Your task to perform on an android device: What's the news in South Korea? Image 0: 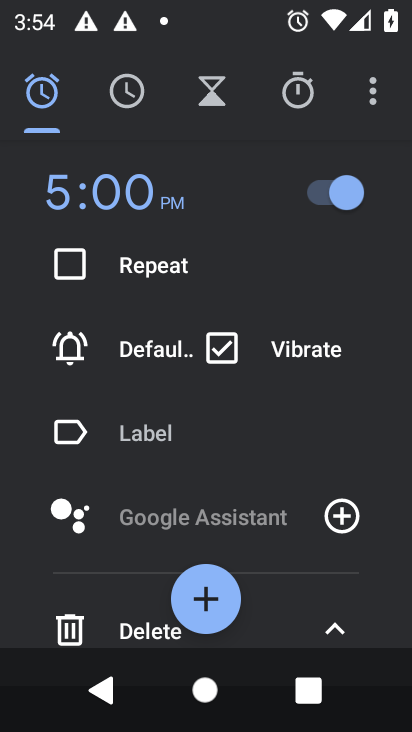
Step 0: press home button
Your task to perform on an android device: What's the news in South Korea? Image 1: 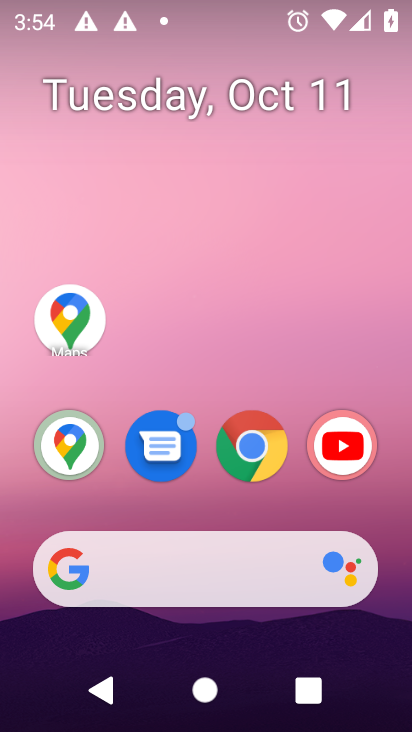
Step 1: click (255, 455)
Your task to perform on an android device: What's the news in South Korea? Image 2: 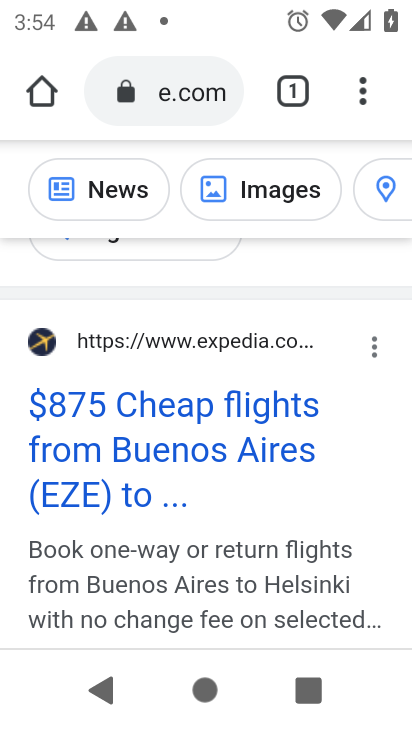
Step 2: click (170, 92)
Your task to perform on an android device: What's the news in South Korea? Image 3: 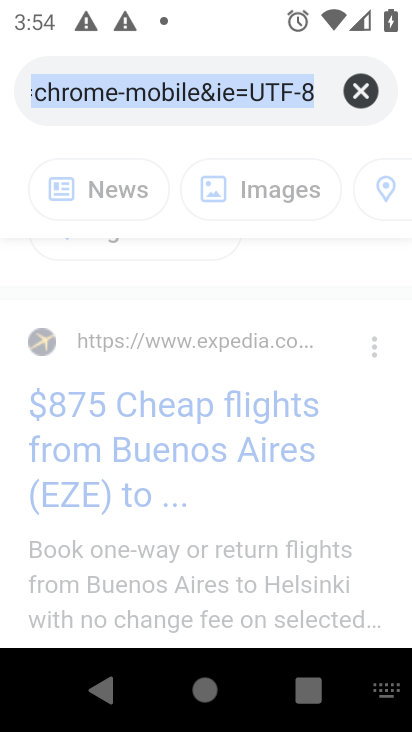
Step 3: click (369, 94)
Your task to perform on an android device: What's the news in South Korea? Image 4: 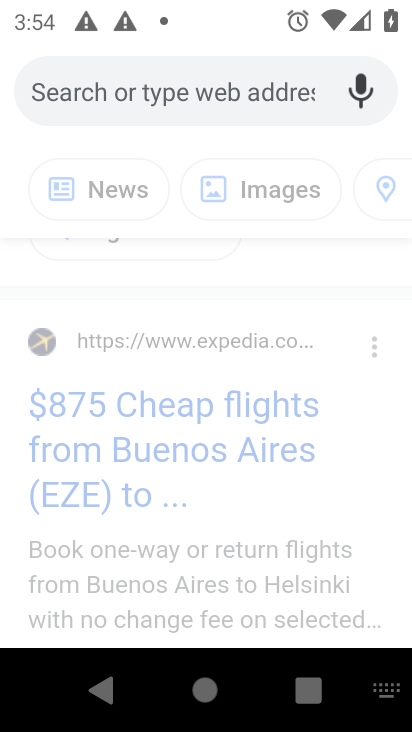
Step 4: type " South Korea news"
Your task to perform on an android device: What's the news in South Korea? Image 5: 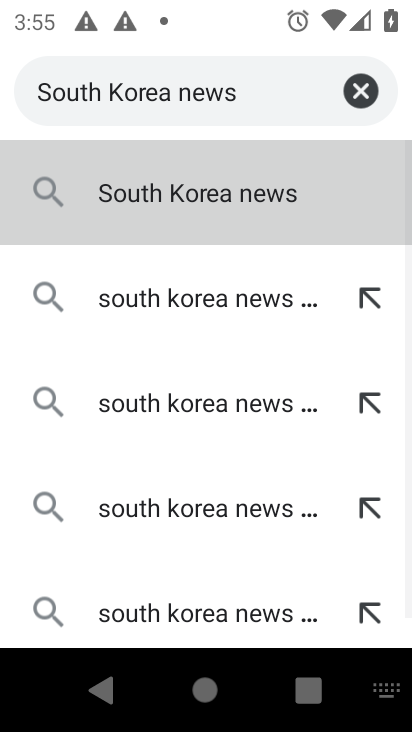
Step 5: click (219, 209)
Your task to perform on an android device: What's the news in South Korea? Image 6: 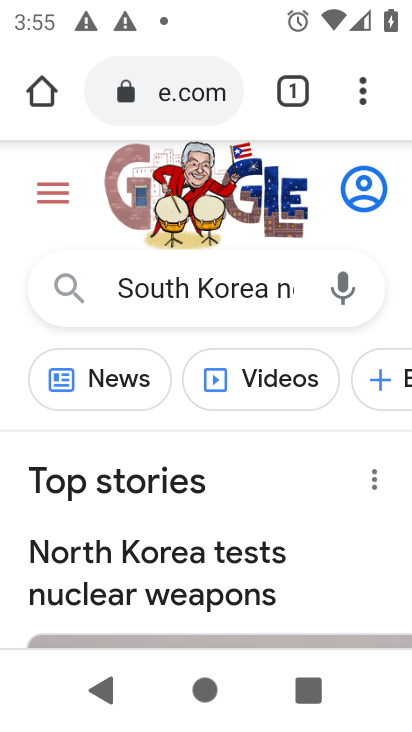
Step 6: drag from (106, 516) to (125, 182)
Your task to perform on an android device: What's the news in South Korea? Image 7: 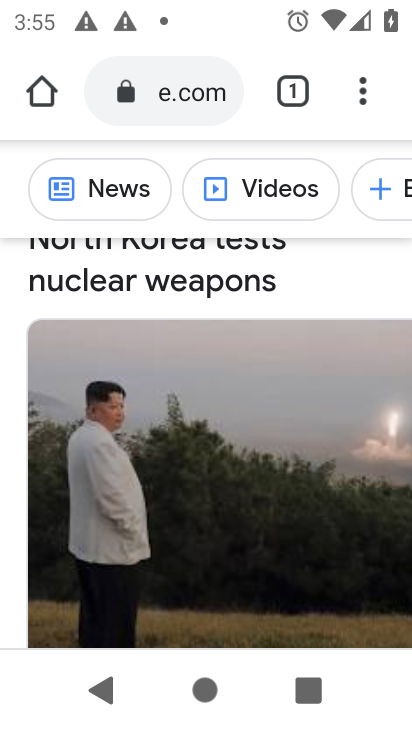
Step 7: click (129, 420)
Your task to perform on an android device: What's the news in South Korea? Image 8: 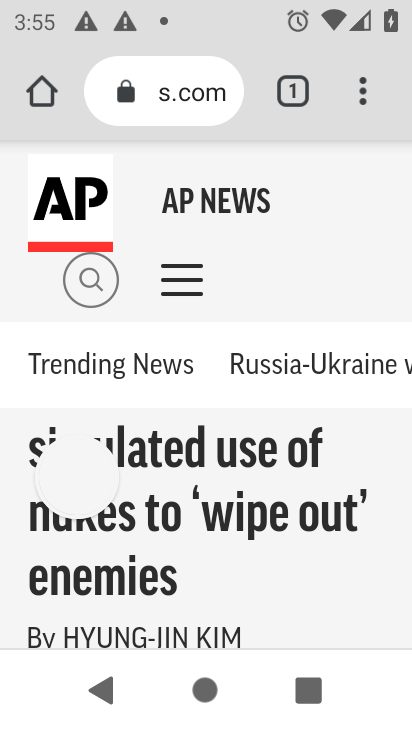
Step 8: task complete